Your task to perform on an android device: toggle show notifications on the lock screen Image 0: 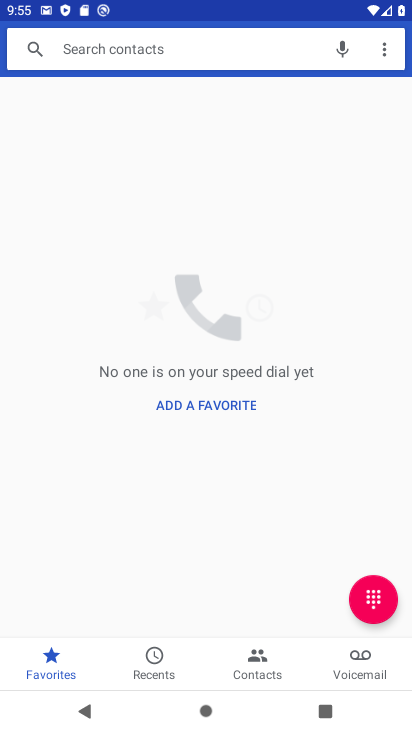
Step 0: press home button
Your task to perform on an android device: toggle show notifications on the lock screen Image 1: 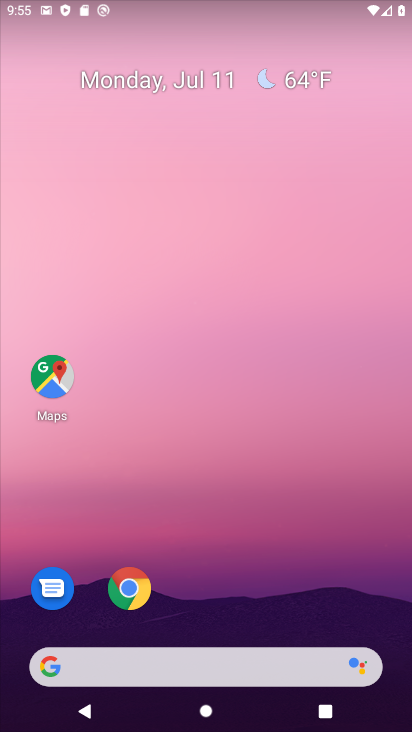
Step 1: drag from (135, 647) to (214, 155)
Your task to perform on an android device: toggle show notifications on the lock screen Image 2: 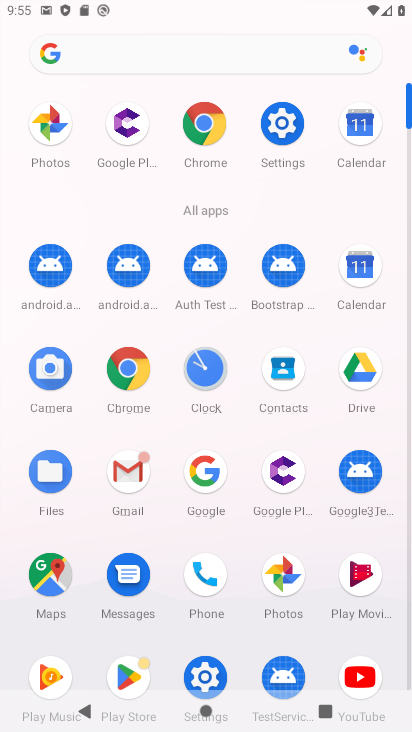
Step 2: click (198, 691)
Your task to perform on an android device: toggle show notifications on the lock screen Image 3: 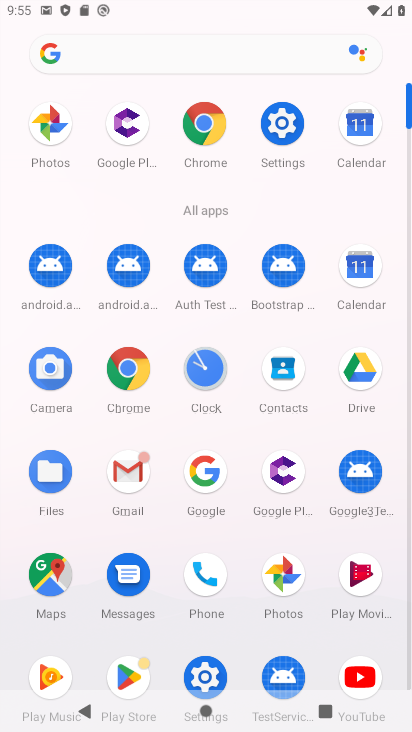
Step 3: click (199, 667)
Your task to perform on an android device: toggle show notifications on the lock screen Image 4: 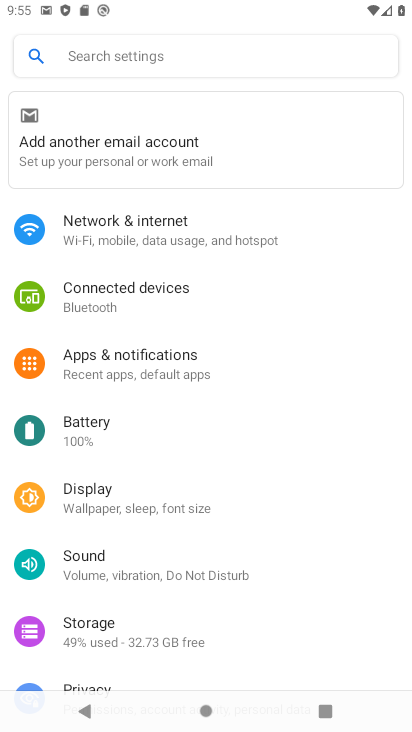
Step 4: click (176, 371)
Your task to perform on an android device: toggle show notifications on the lock screen Image 5: 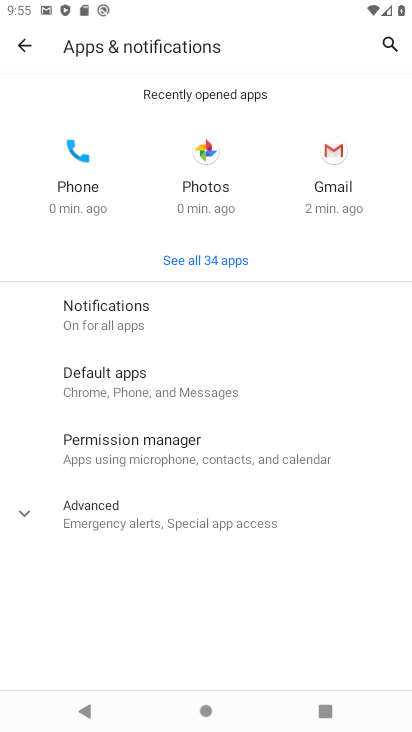
Step 5: click (136, 322)
Your task to perform on an android device: toggle show notifications on the lock screen Image 6: 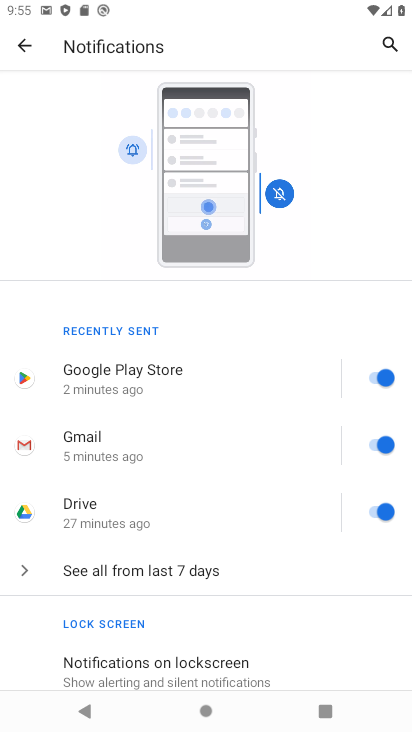
Step 6: drag from (147, 624) to (219, 325)
Your task to perform on an android device: toggle show notifications on the lock screen Image 7: 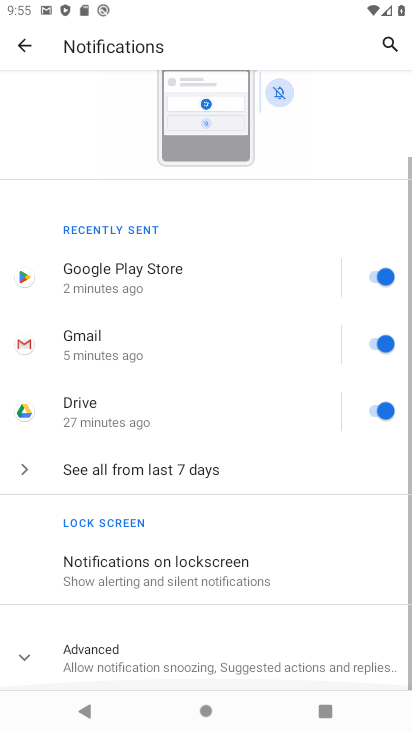
Step 7: click (186, 582)
Your task to perform on an android device: toggle show notifications on the lock screen Image 8: 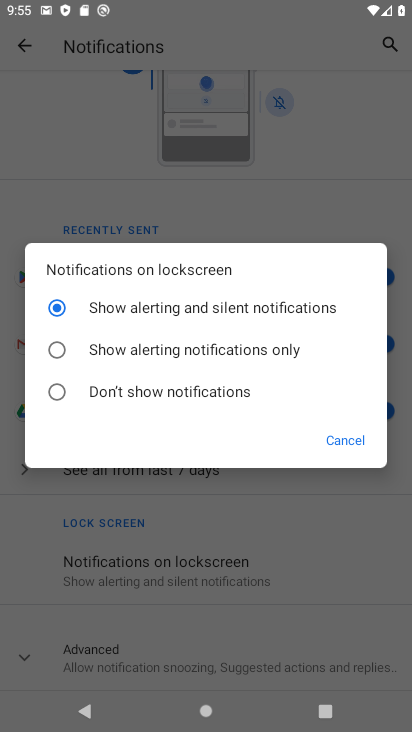
Step 8: click (66, 391)
Your task to perform on an android device: toggle show notifications on the lock screen Image 9: 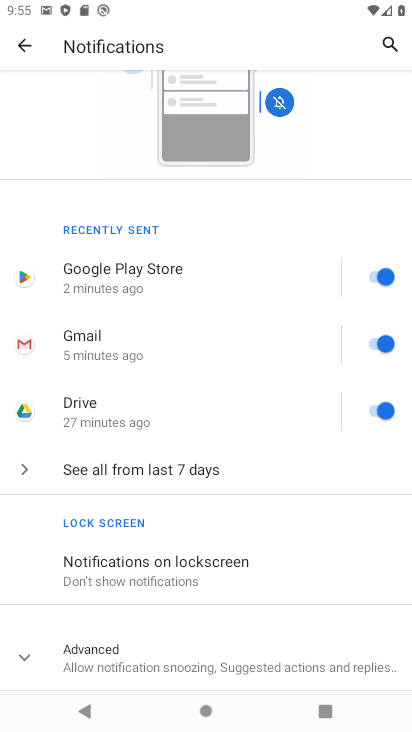
Step 9: task complete